Your task to perform on an android device: Open Reddit.com Image 0: 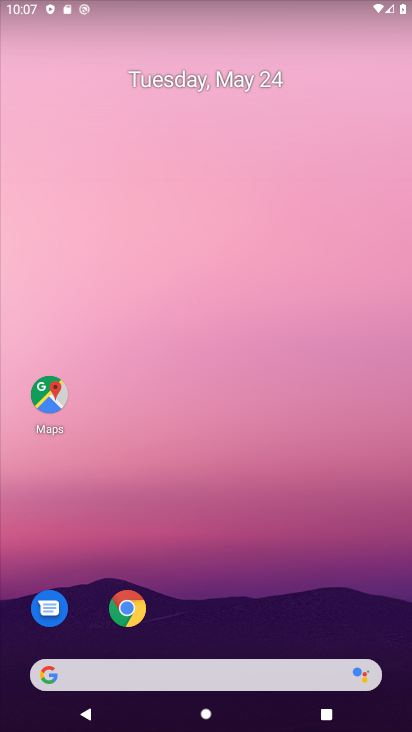
Step 0: click (126, 609)
Your task to perform on an android device: Open Reddit.com Image 1: 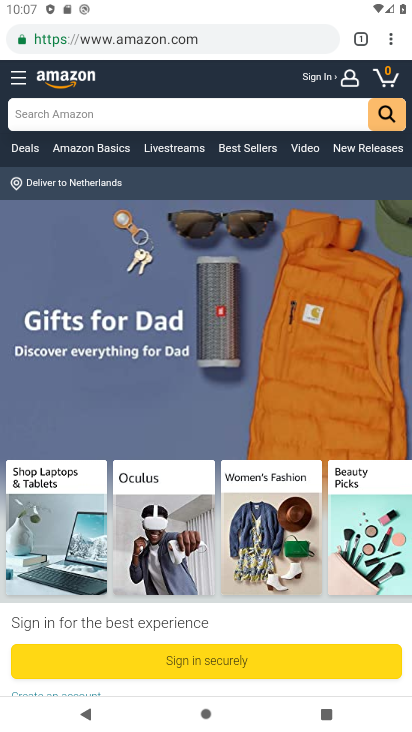
Step 1: click (202, 35)
Your task to perform on an android device: Open Reddit.com Image 2: 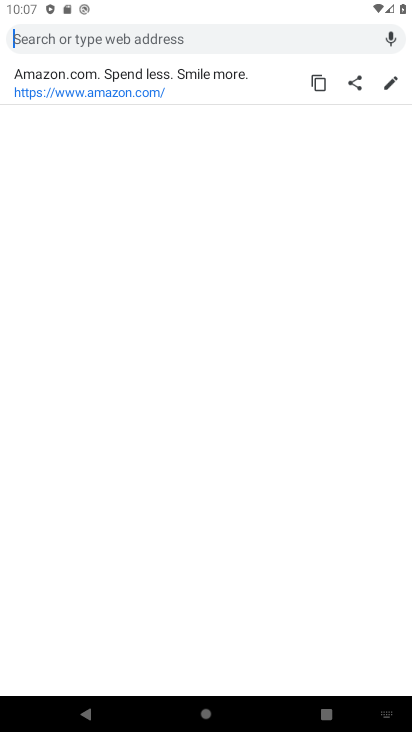
Step 2: type "reddit.com"
Your task to perform on an android device: Open Reddit.com Image 3: 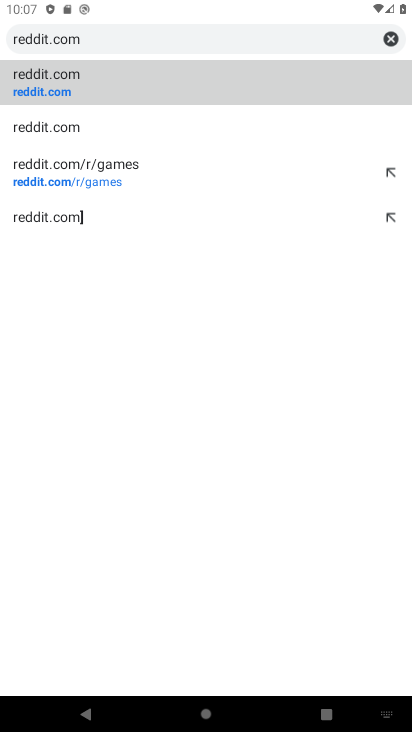
Step 3: click (52, 83)
Your task to perform on an android device: Open Reddit.com Image 4: 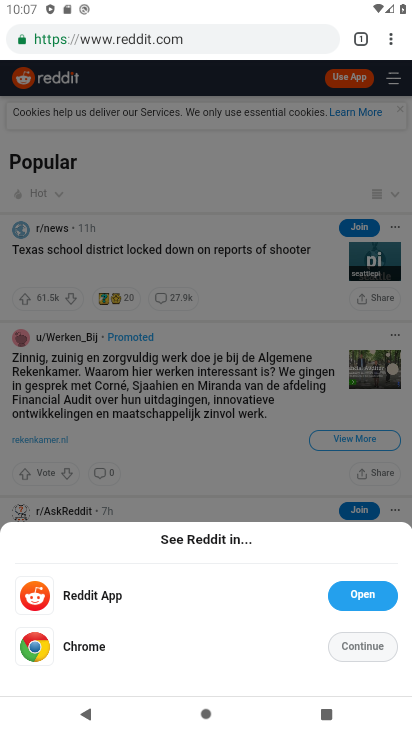
Step 4: task complete